Your task to perform on an android device: Open privacy settings Image 0: 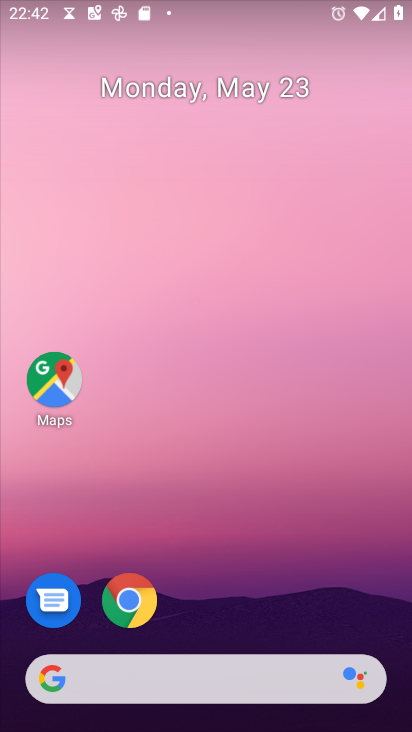
Step 0: drag from (226, 726) to (218, 155)
Your task to perform on an android device: Open privacy settings Image 1: 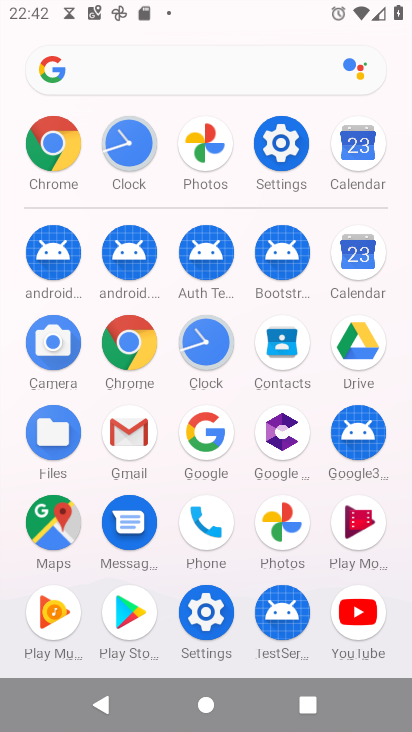
Step 1: click (281, 149)
Your task to perform on an android device: Open privacy settings Image 2: 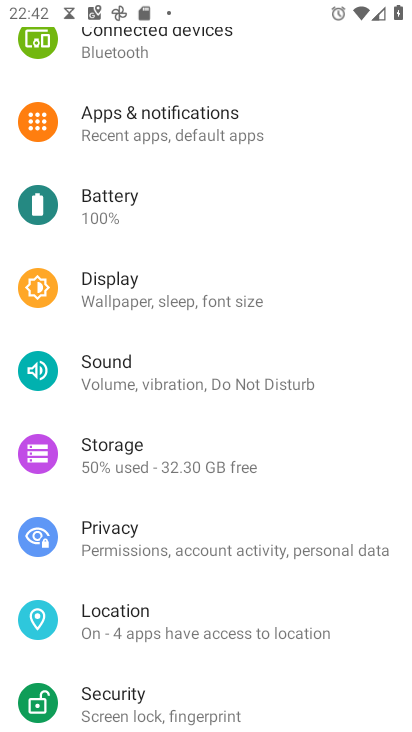
Step 2: click (104, 543)
Your task to perform on an android device: Open privacy settings Image 3: 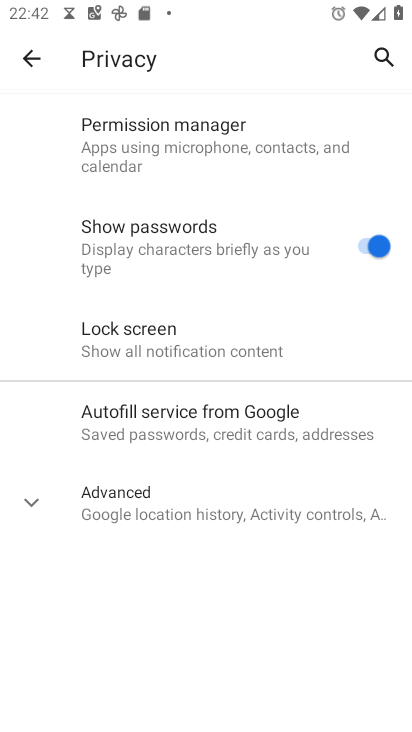
Step 3: task complete